Your task to perform on an android device: turn on improve location accuracy Image 0: 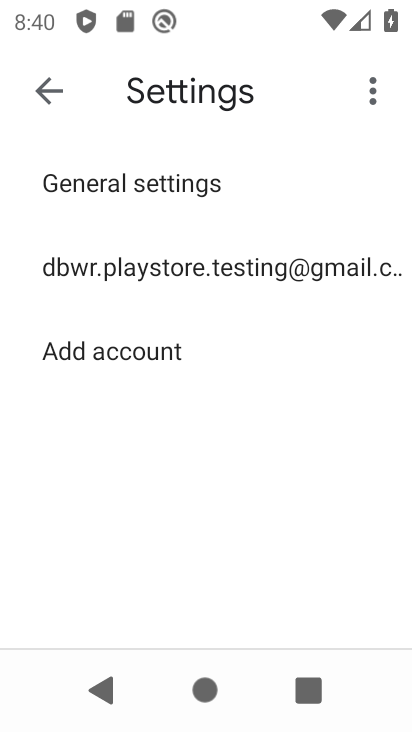
Step 0: press home button
Your task to perform on an android device: turn on improve location accuracy Image 1: 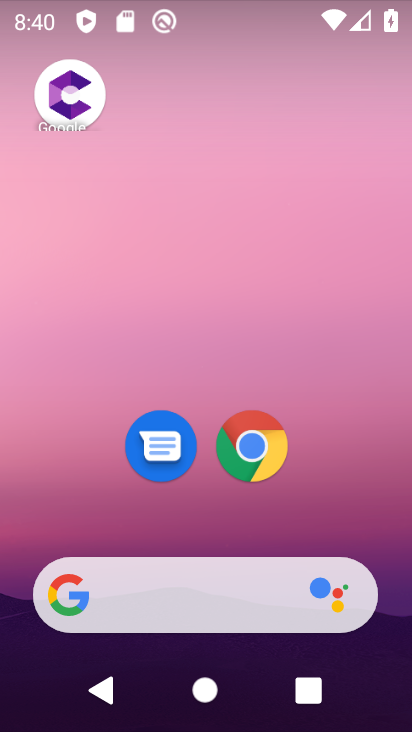
Step 1: drag from (294, 513) to (285, 68)
Your task to perform on an android device: turn on improve location accuracy Image 2: 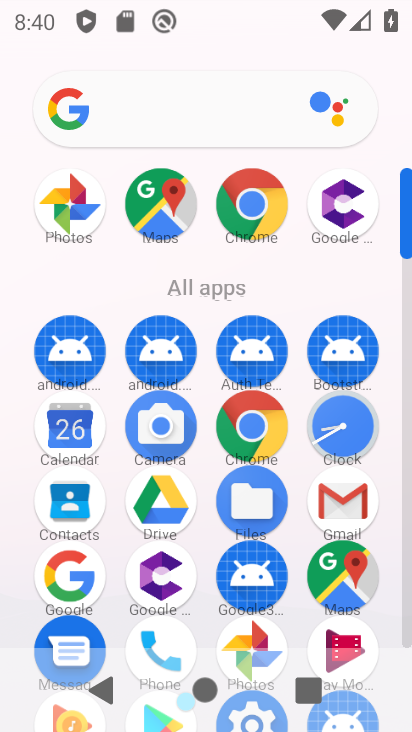
Step 2: drag from (202, 300) to (193, 58)
Your task to perform on an android device: turn on improve location accuracy Image 3: 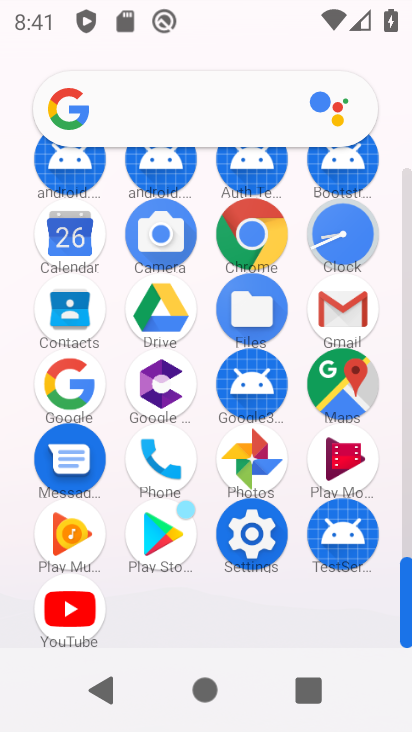
Step 3: click (253, 528)
Your task to perform on an android device: turn on improve location accuracy Image 4: 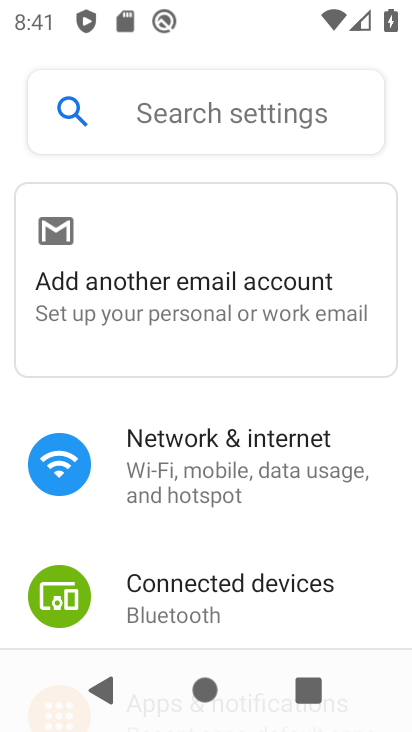
Step 4: drag from (356, 573) to (349, 234)
Your task to perform on an android device: turn on improve location accuracy Image 5: 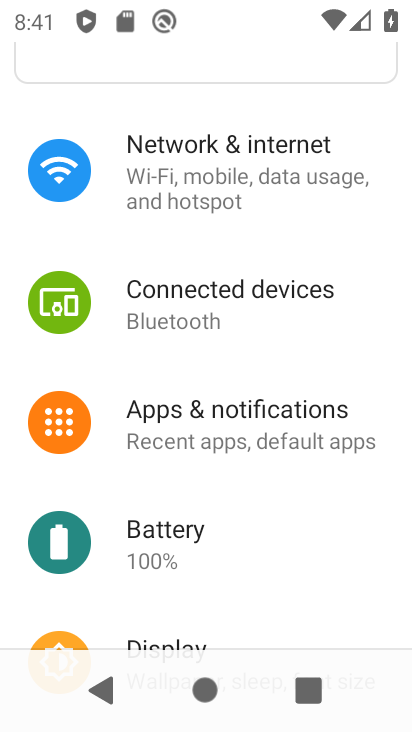
Step 5: drag from (316, 548) to (319, 314)
Your task to perform on an android device: turn on improve location accuracy Image 6: 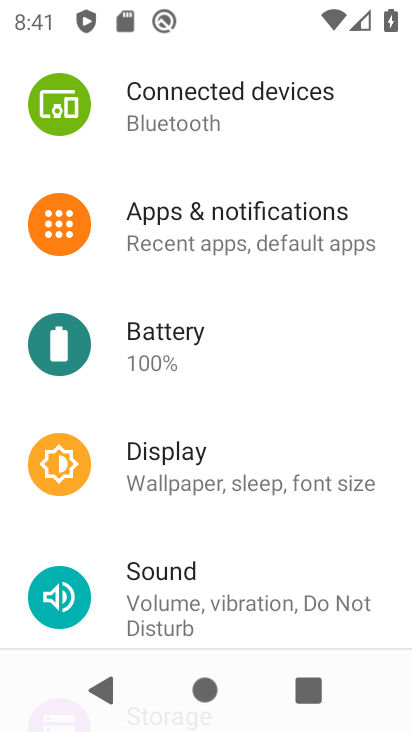
Step 6: drag from (308, 593) to (317, 402)
Your task to perform on an android device: turn on improve location accuracy Image 7: 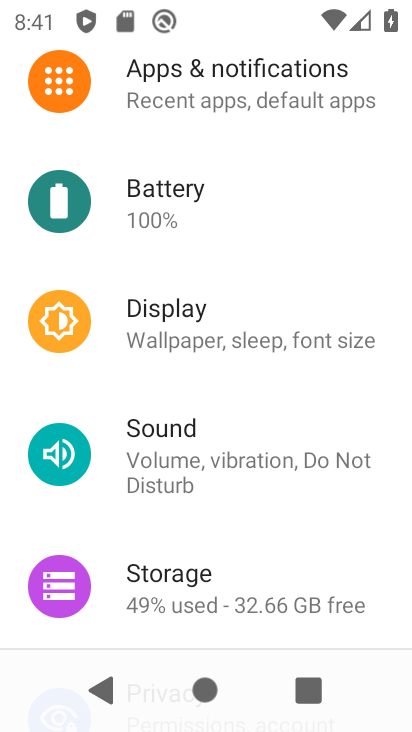
Step 7: drag from (311, 590) to (304, 420)
Your task to perform on an android device: turn on improve location accuracy Image 8: 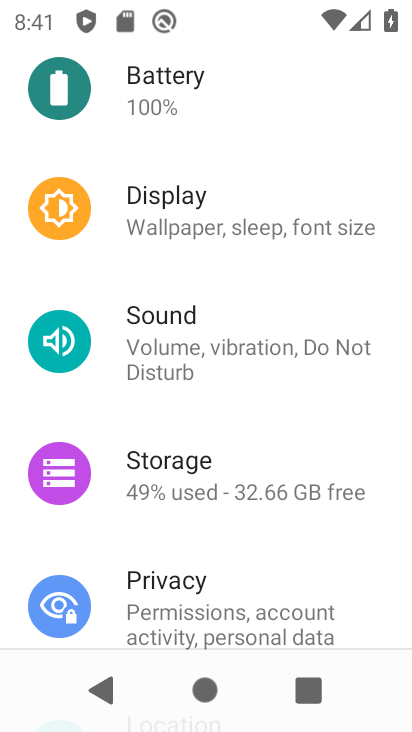
Step 8: drag from (292, 465) to (210, 478)
Your task to perform on an android device: turn on improve location accuracy Image 9: 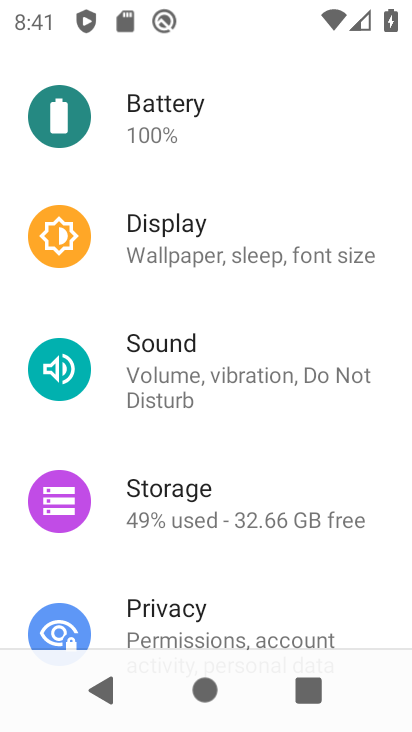
Step 9: drag from (213, 591) to (215, 440)
Your task to perform on an android device: turn on improve location accuracy Image 10: 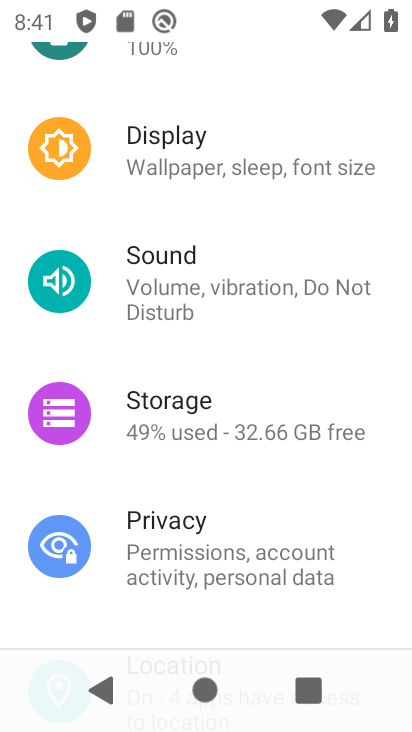
Step 10: drag from (204, 537) to (218, 339)
Your task to perform on an android device: turn on improve location accuracy Image 11: 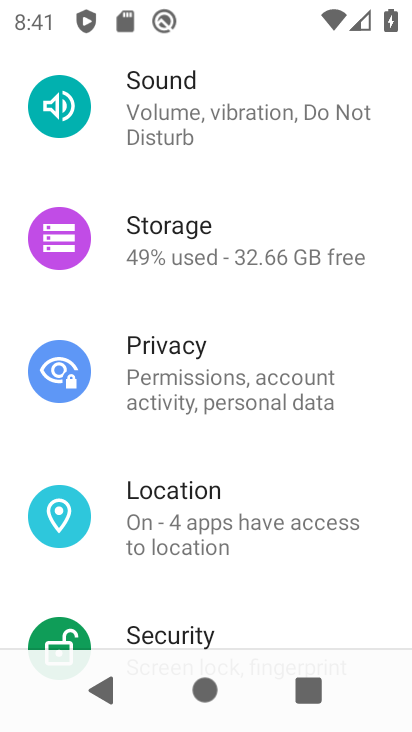
Step 11: click (175, 521)
Your task to perform on an android device: turn on improve location accuracy Image 12: 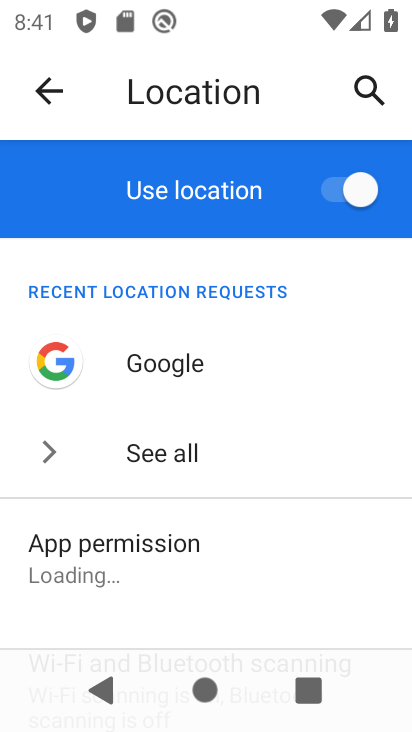
Step 12: drag from (247, 573) to (249, 362)
Your task to perform on an android device: turn on improve location accuracy Image 13: 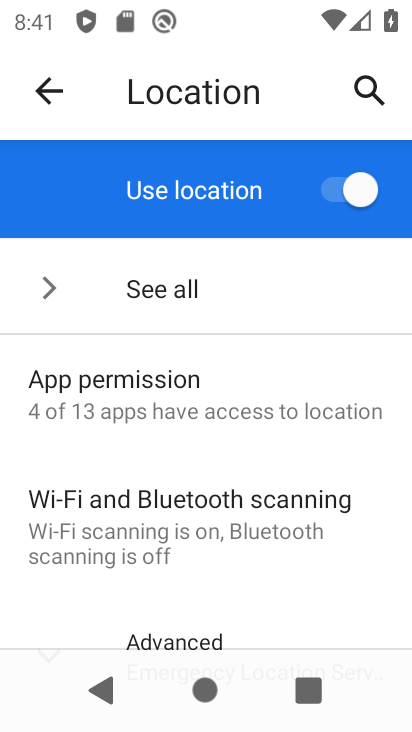
Step 13: drag from (161, 593) to (184, 290)
Your task to perform on an android device: turn on improve location accuracy Image 14: 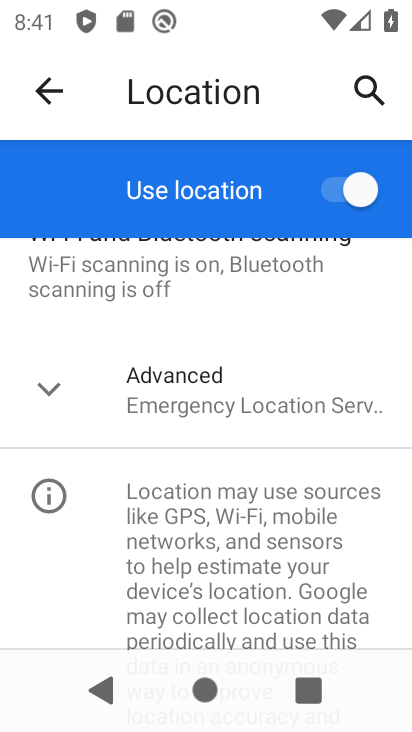
Step 14: click (147, 387)
Your task to perform on an android device: turn on improve location accuracy Image 15: 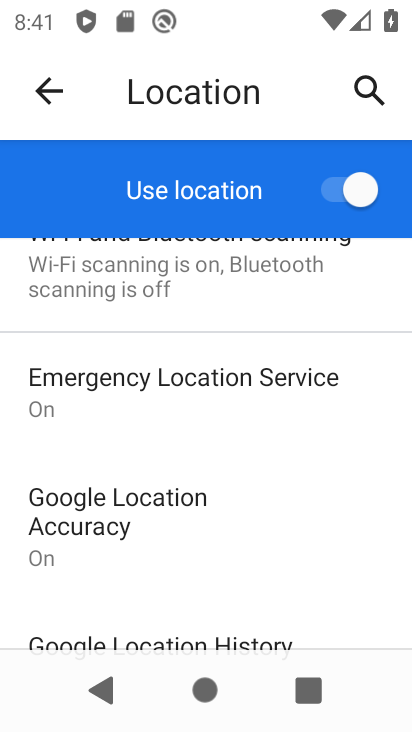
Step 15: click (97, 514)
Your task to perform on an android device: turn on improve location accuracy Image 16: 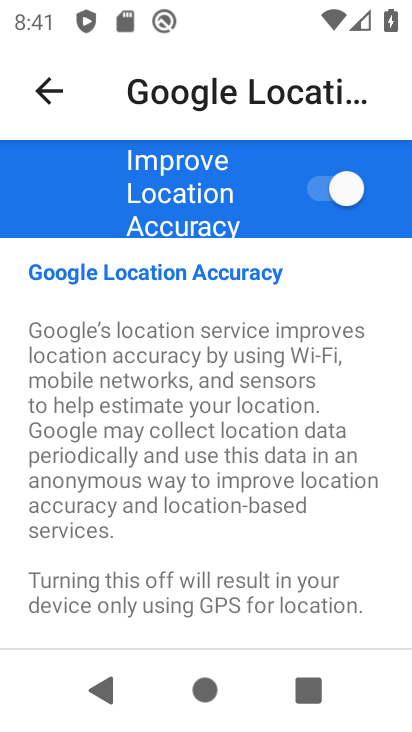
Step 16: task complete